Your task to perform on an android device: What's on my calendar today? Image 0: 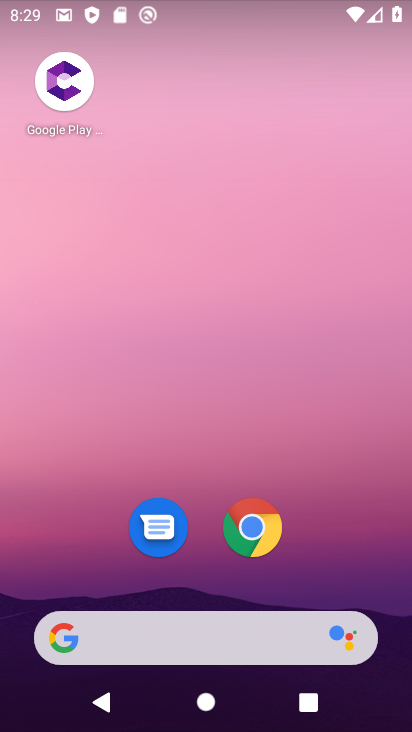
Step 0: drag from (373, 572) to (379, 76)
Your task to perform on an android device: What's on my calendar today? Image 1: 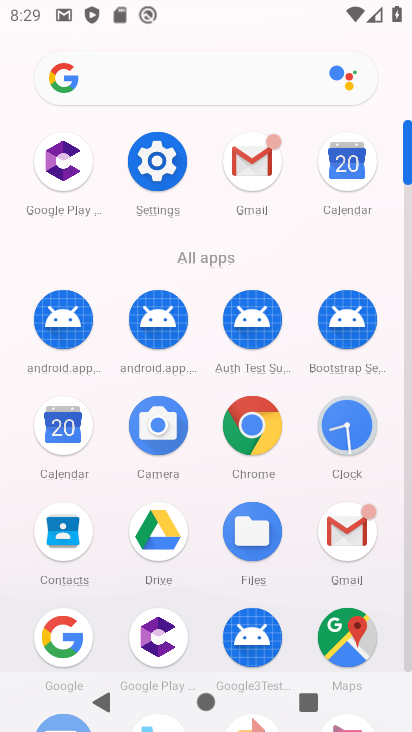
Step 1: click (70, 444)
Your task to perform on an android device: What's on my calendar today? Image 2: 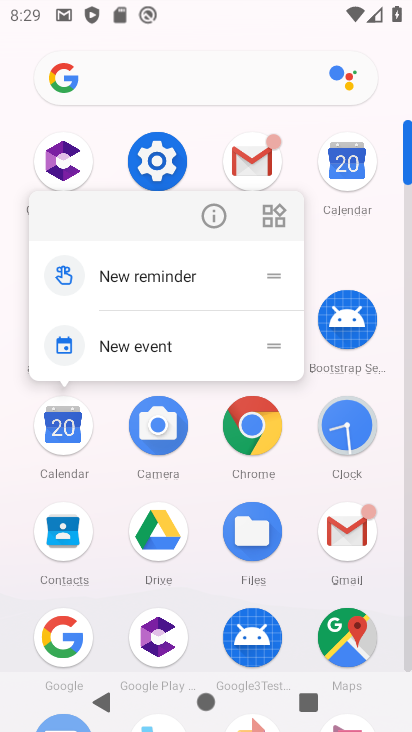
Step 2: click (46, 432)
Your task to perform on an android device: What's on my calendar today? Image 3: 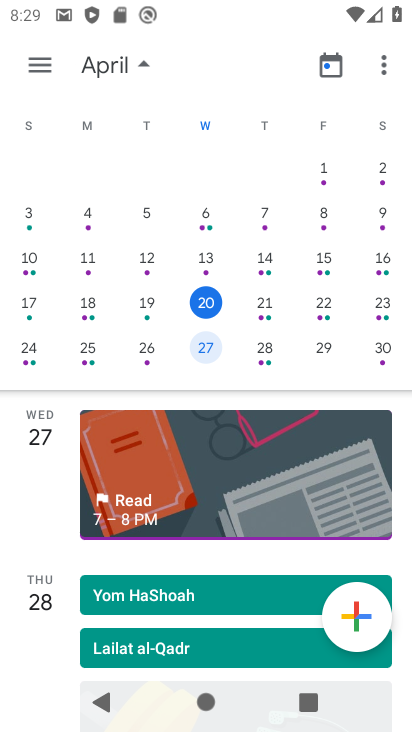
Step 3: task complete